Your task to perform on an android device: Search for the best rated vacuums on Target Image 0: 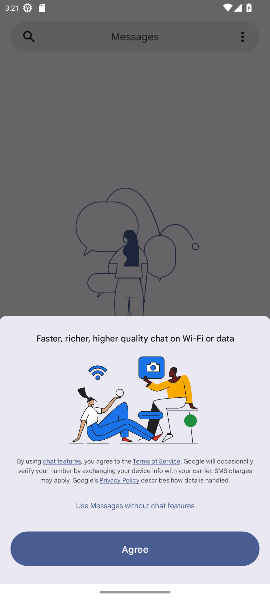
Step 0: press home button
Your task to perform on an android device: Search for the best rated vacuums on Target Image 1: 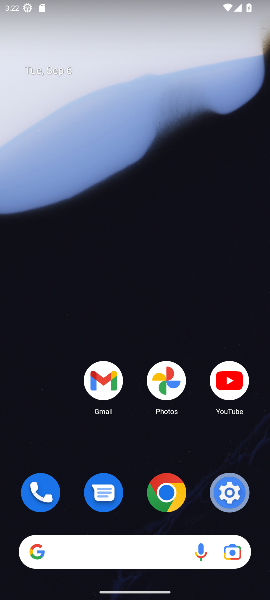
Step 1: drag from (200, 464) to (172, 31)
Your task to perform on an android device: Search for the best rated vacuums on Target Image 2: 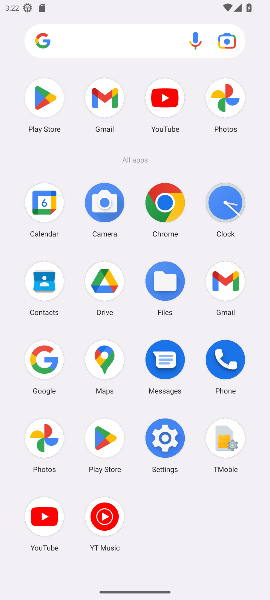
Step 2: click (46, 353)
Your task to perform on an android device: Search for the best rated vacuums on Target Image 3: 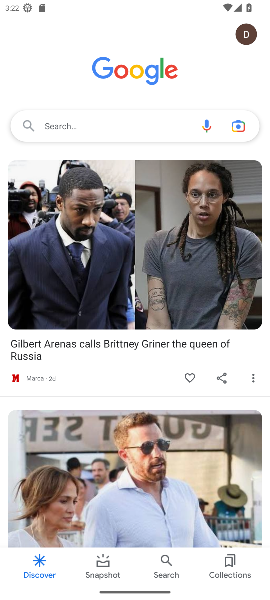
Step 3: click (86, 126)
Your task to perform on an android device: Search for the best rated vacuums on Target Image 4: 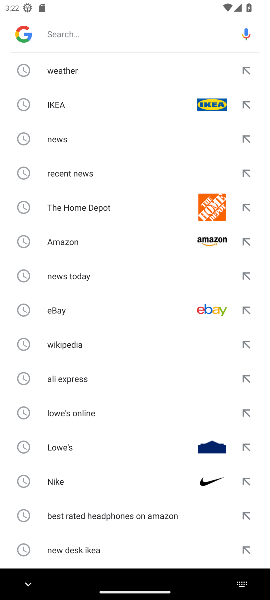
Step 4: type "best rated vacuums on Target"
Your task to perform on an android device: Search for the best rated vacuums on Target Image 5: 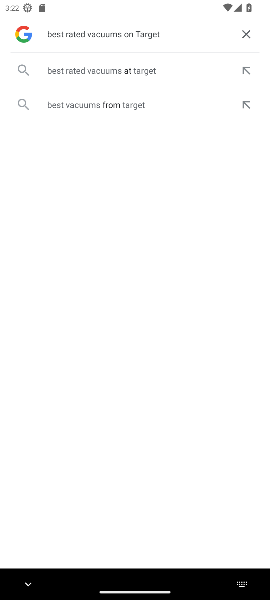
Step 5: click (100, 71)
Your task to perform on an android device: Search for the best rated vacuums on Target Image 6: 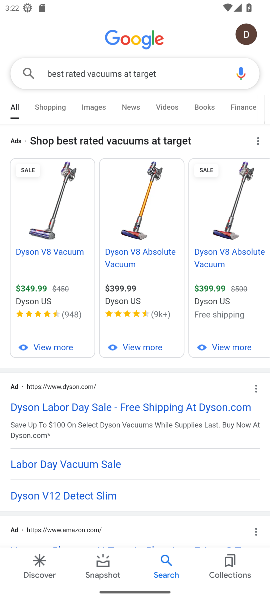
Step 6: task complete